Your task to perform on an android device: refresh tabs in the chrome app Image 0: 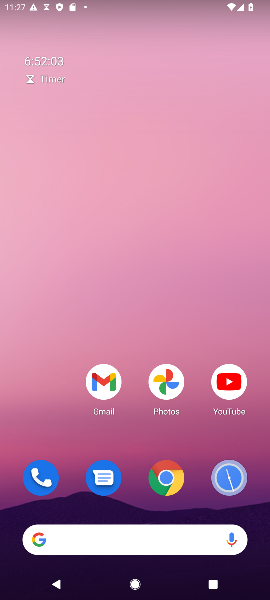
Step 0: click (165, 491)
Your task to perform on an android device: refresh tabs in the chrome app Image 1: 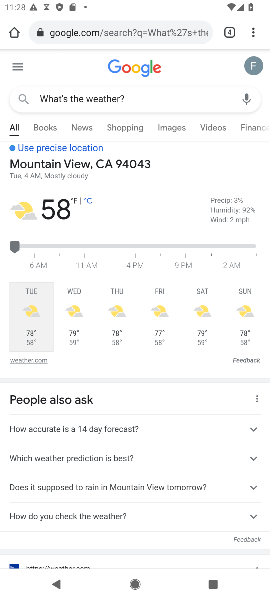
Step 1: click (253, 32)
Your task to perform on an android device: refresh tabs in the chrome app Image 2: 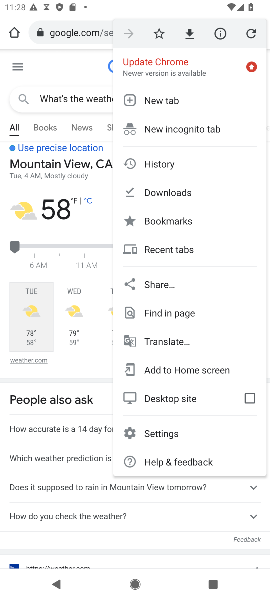
Step 2: click (254, 30)
Your task to perform on an android device: refresh tabs in the chrome app Image 3: 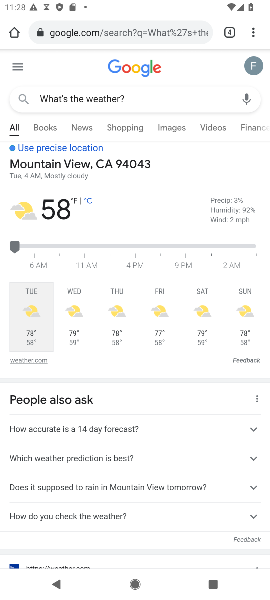
Step 3: task complete